Your task to perform on an android device: open chrome and create a bookmark for the current page Image 0: 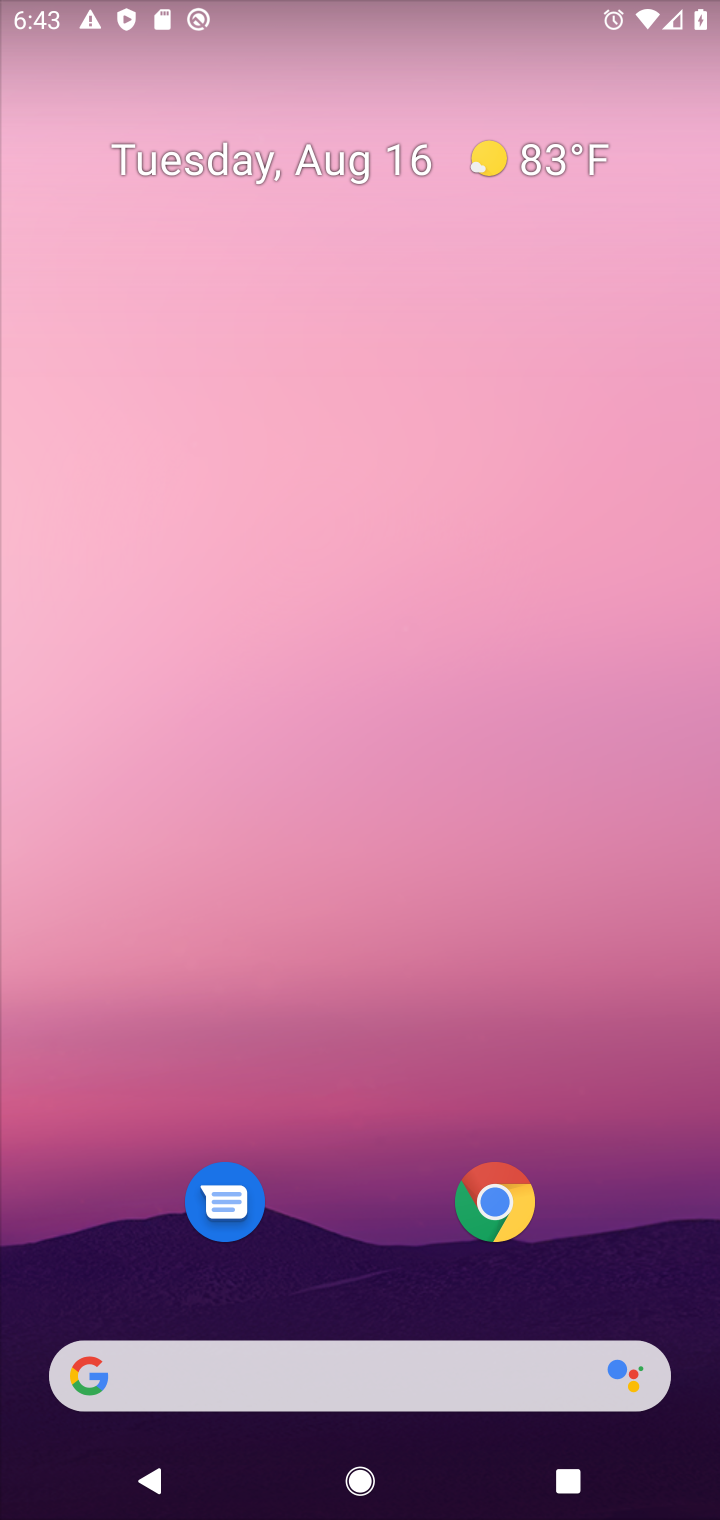
Step 0: drag from (680, 1243) to (361, 43)
Your task to perform on an android device: open chrome and create a bookmark for the current page Image 1: 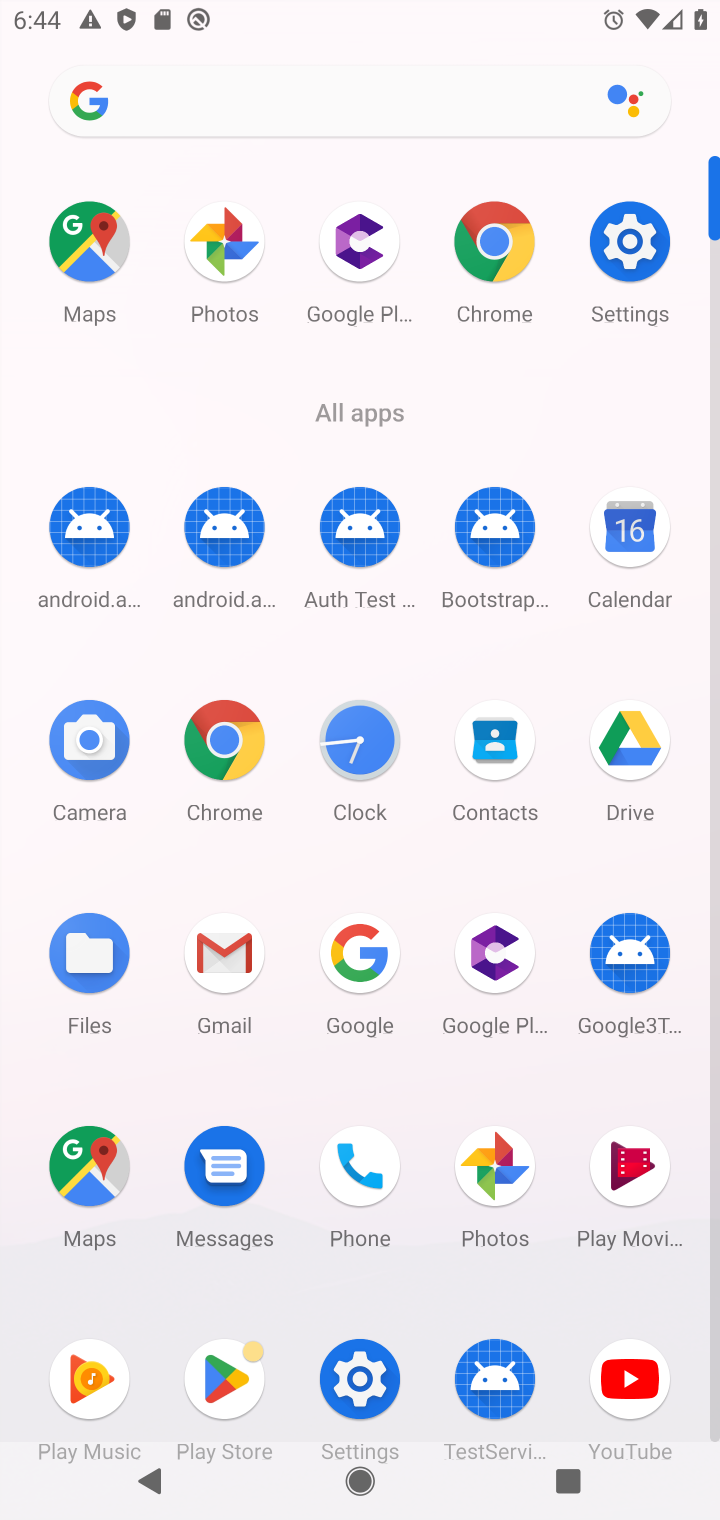
Step 1: click (228, 725)
Your task to perform on an android device: open chrome and create a bookmark for the current page Image 2: 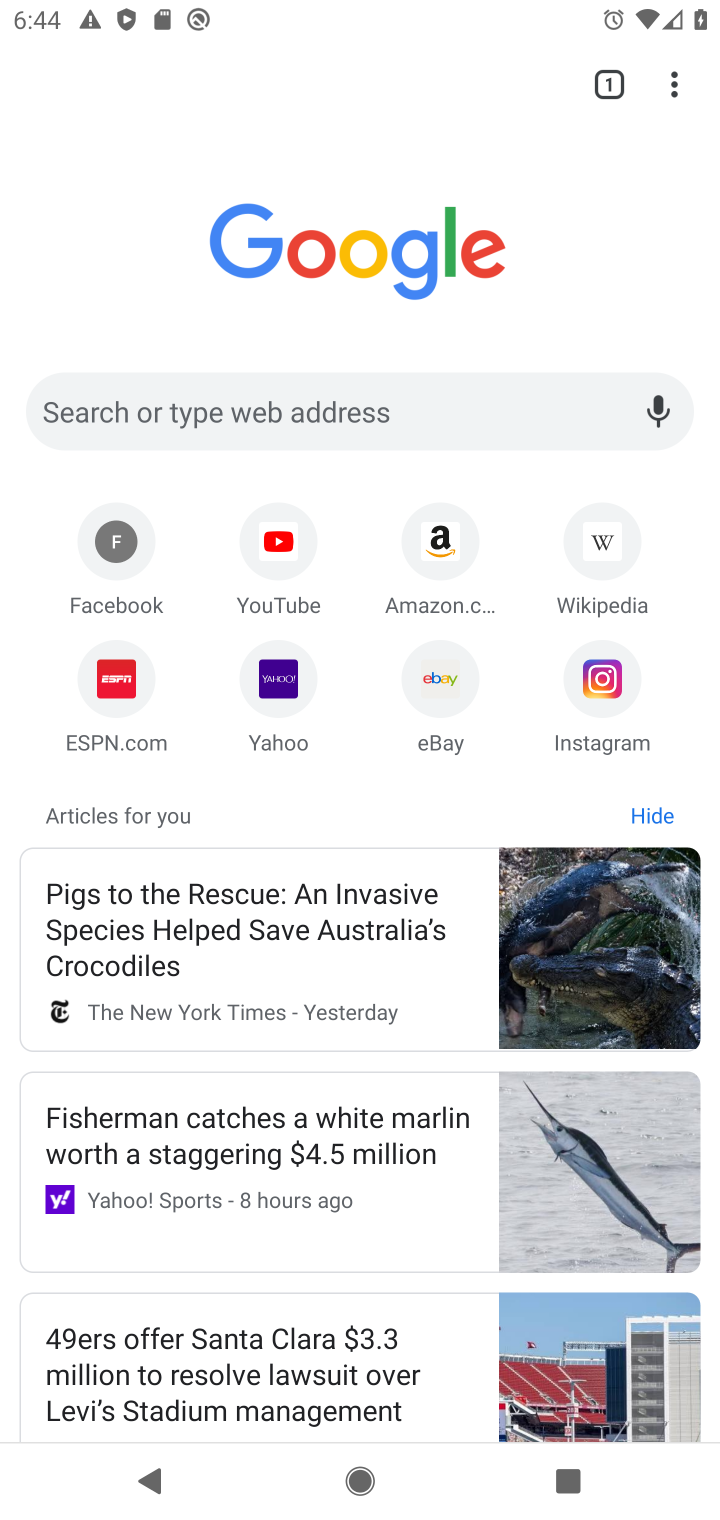
Step 2: click (677, 69)
Your task to perform on an android device: open chrome and create a bookmark for the current page Image 3: 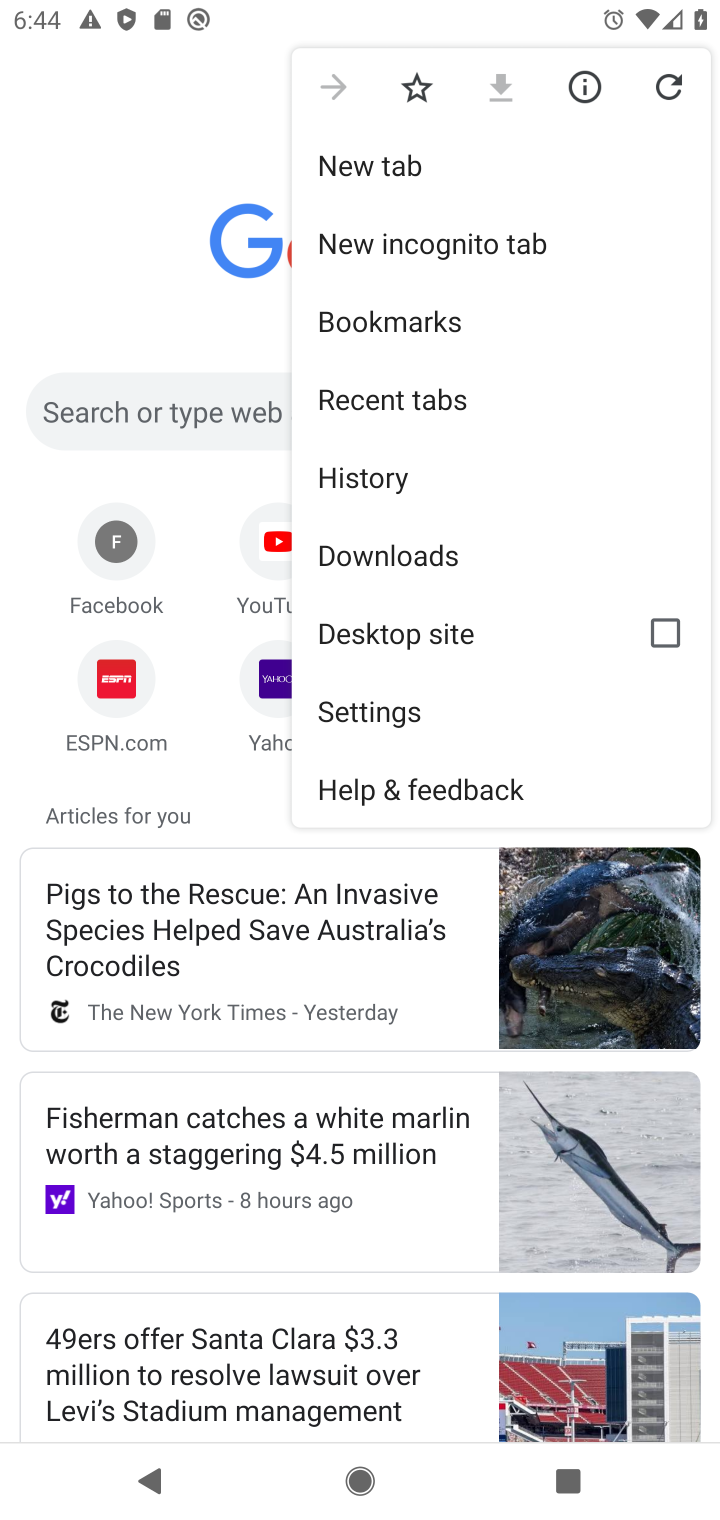
Step 3: click (410, 81)
Your task to perform on an android device: open chrome and create a bookmark for the current page Image 4: 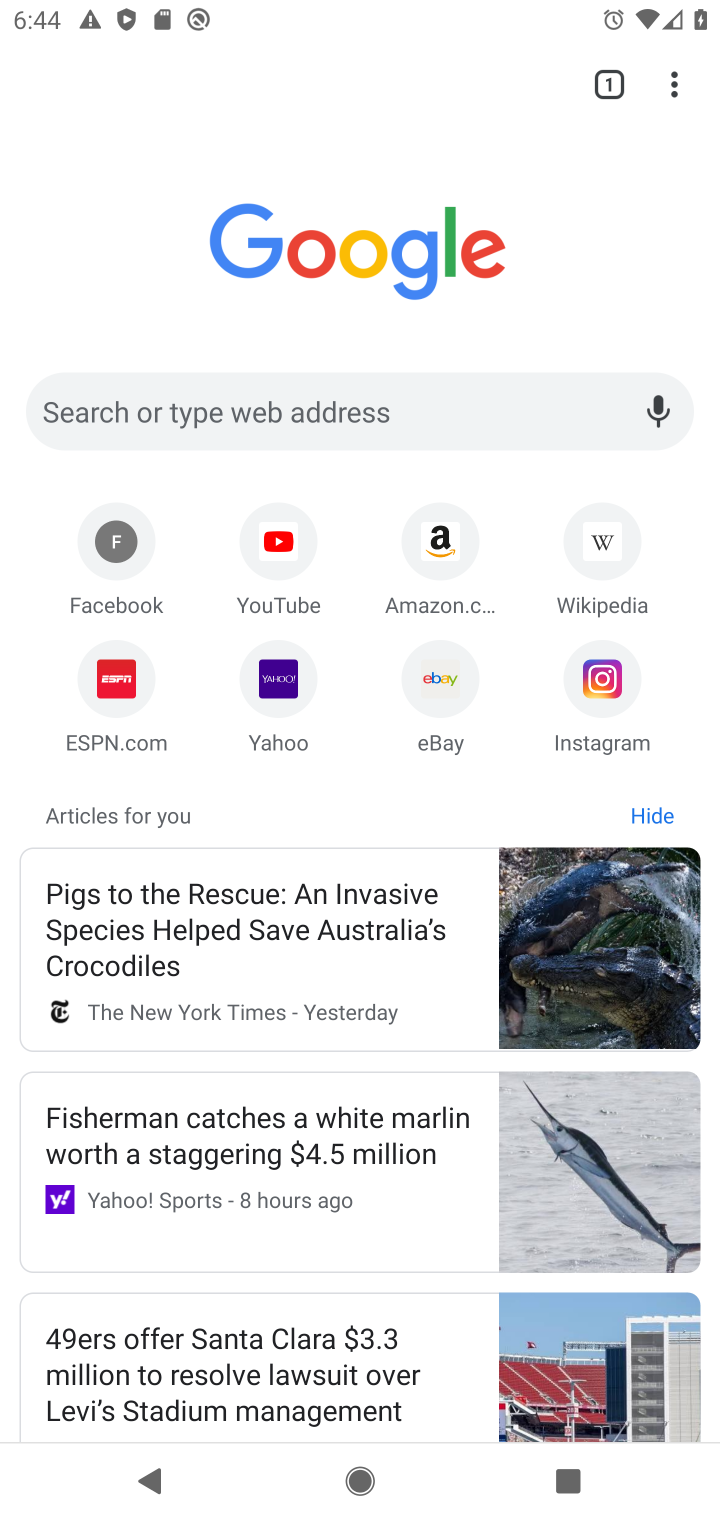
Step 4: task complete